Your task to perform on an android device: stop showing notifications on the lock screen Image 0: 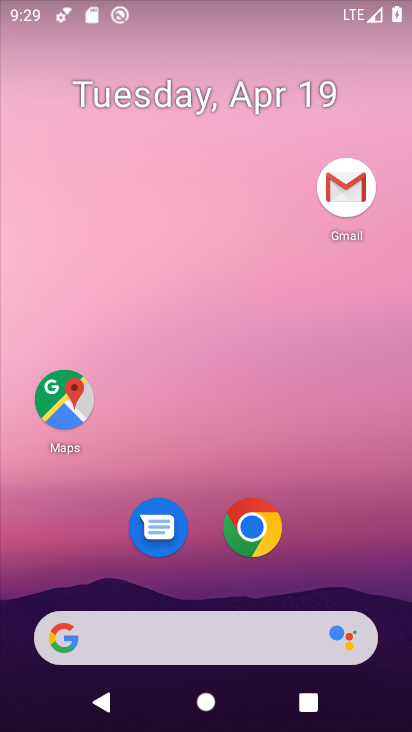
Step 0: drag from (357, 526) to (360, 104)
Your task to perform on an android device: stop showing notifications on the lock screen Image 1: 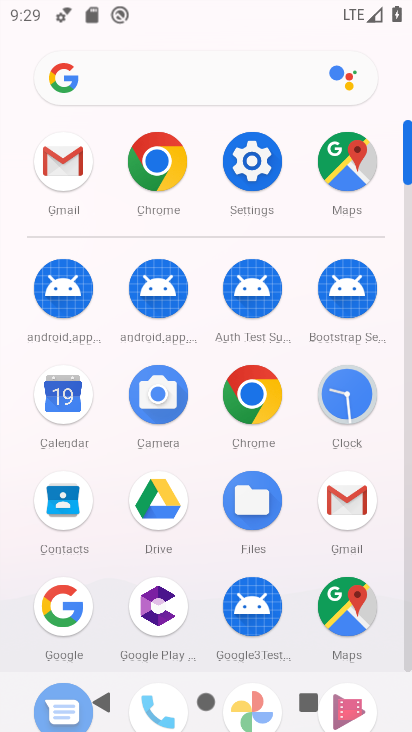
Step 1: click (249, 155)
Your task to perform on an android device: stop showing notifications on the lock screen Image 2: 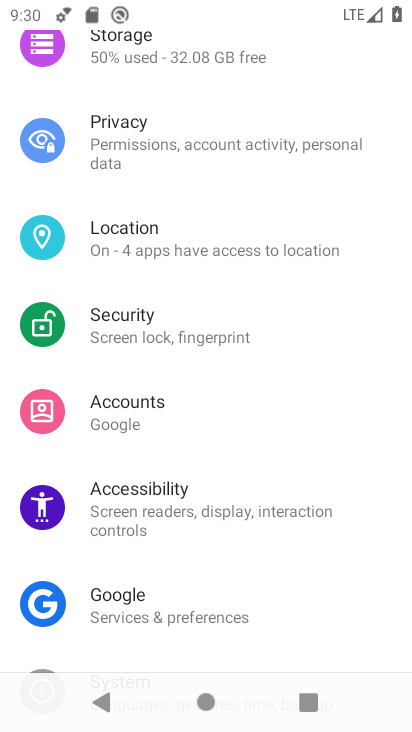
Step 2: drag from (319, 195) to (316, 525)
Your task to perform on an android device: stop showing notifications on the lock screen Image 3: 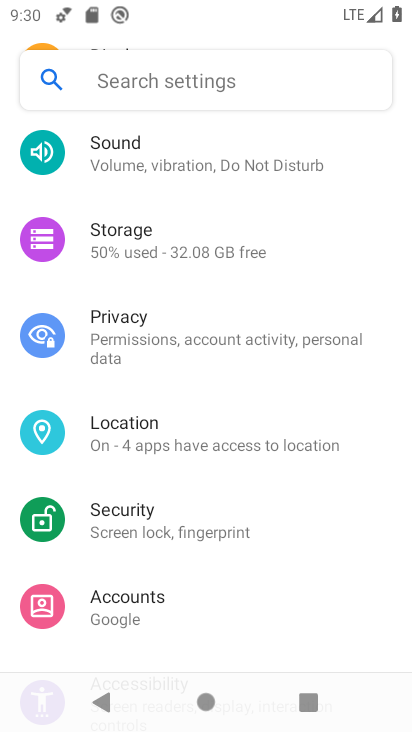
Step 3: drag from (270, 297) to (273, 569)
Your task to perform on an android device: stop showing notifications on the lock screen Image 4: 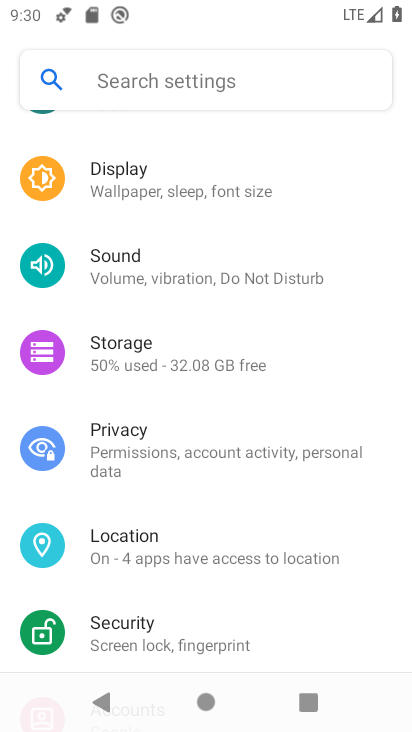
Step 4: drag from (310, 190) to (316, 568)
Your task to perform on an android device: stop showing notifications on the lock screen Image 5: 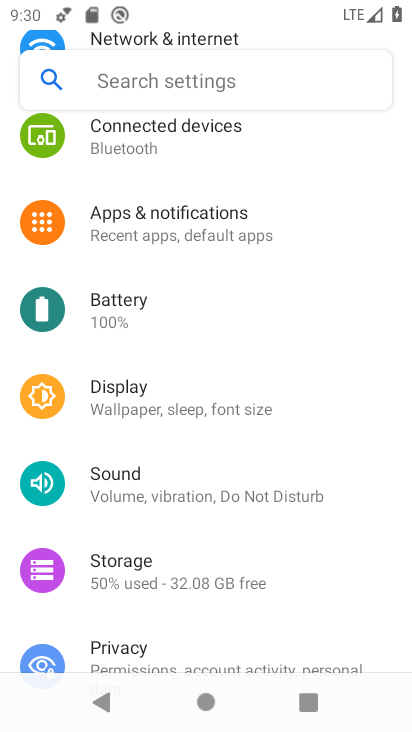
Step 5: click (190, 209)
Your task to perform on an android device: stop showing notifications on the lock screen Image 6: 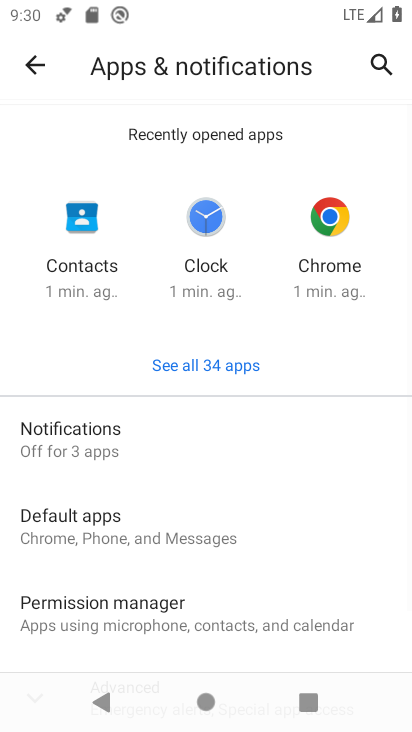
Step 6: click (70, 440)
Your task to perform on an android device: stop showing notifications on the lock screen Image 7: 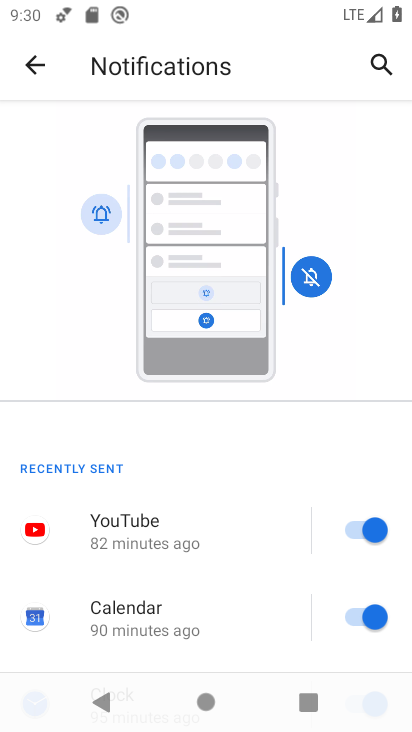
Step 7: drag from (273, 649) to (389, 210)
Your task to perform on an android device: stop showing notifications on the lock screen Image 8: 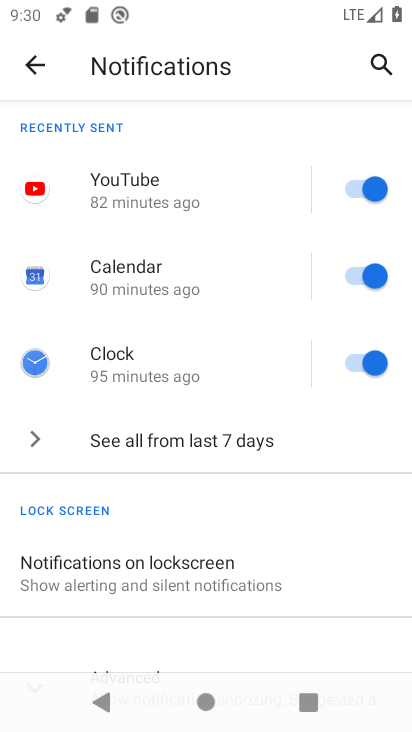
Step 8: click (209, 577)
Your task to perform on an android device: stop showing notifications on the lock screen Image 9: 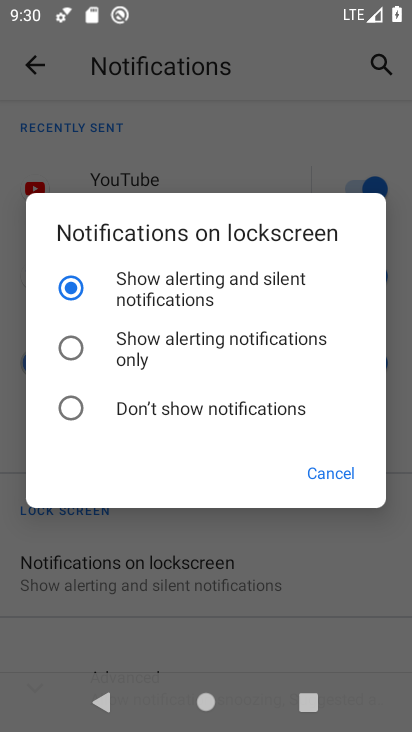
Step 9: click (194, 410)
Your task to perform on an android device: stop showing notifications on the lock screen Image 10: 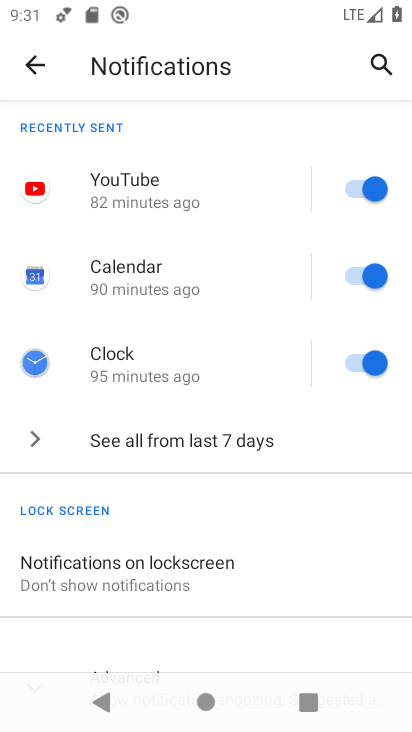
Step 10: click (232, 572)
Your task to perform on an android device: stop showing notifications on the lock screen Image 11: 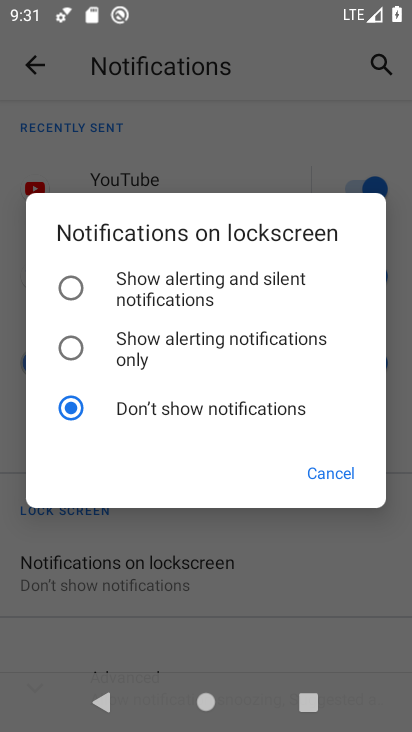
Step 11: task complete